Your task to perform on an android device: Search for flights from London to Paris Image 0: 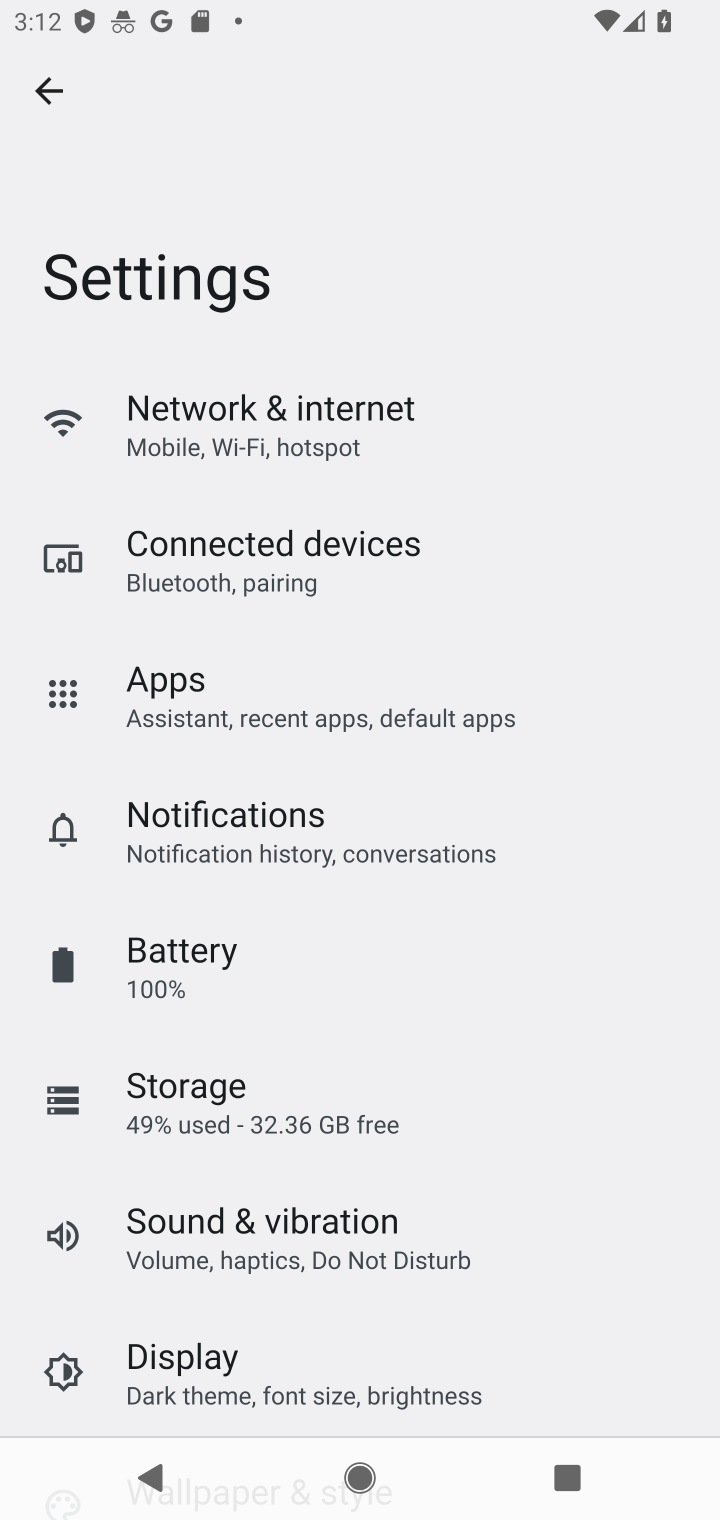
Step 0: press home button
Your task to perform on an android device: Search for flights from London to Paris Image 1: 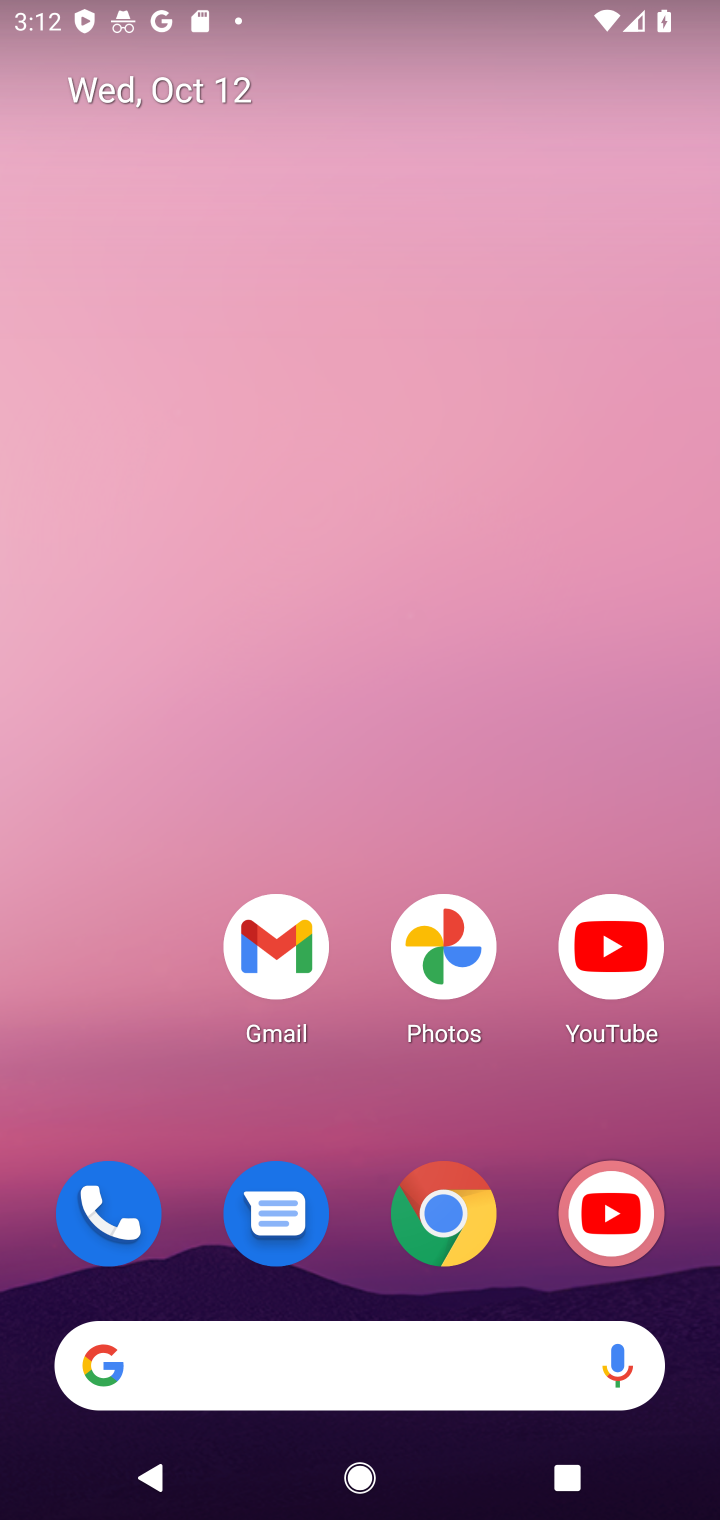
Step 1: click (356, 1384)
Your task to perform on an android device: Search for flights from London to Paris Image 2: 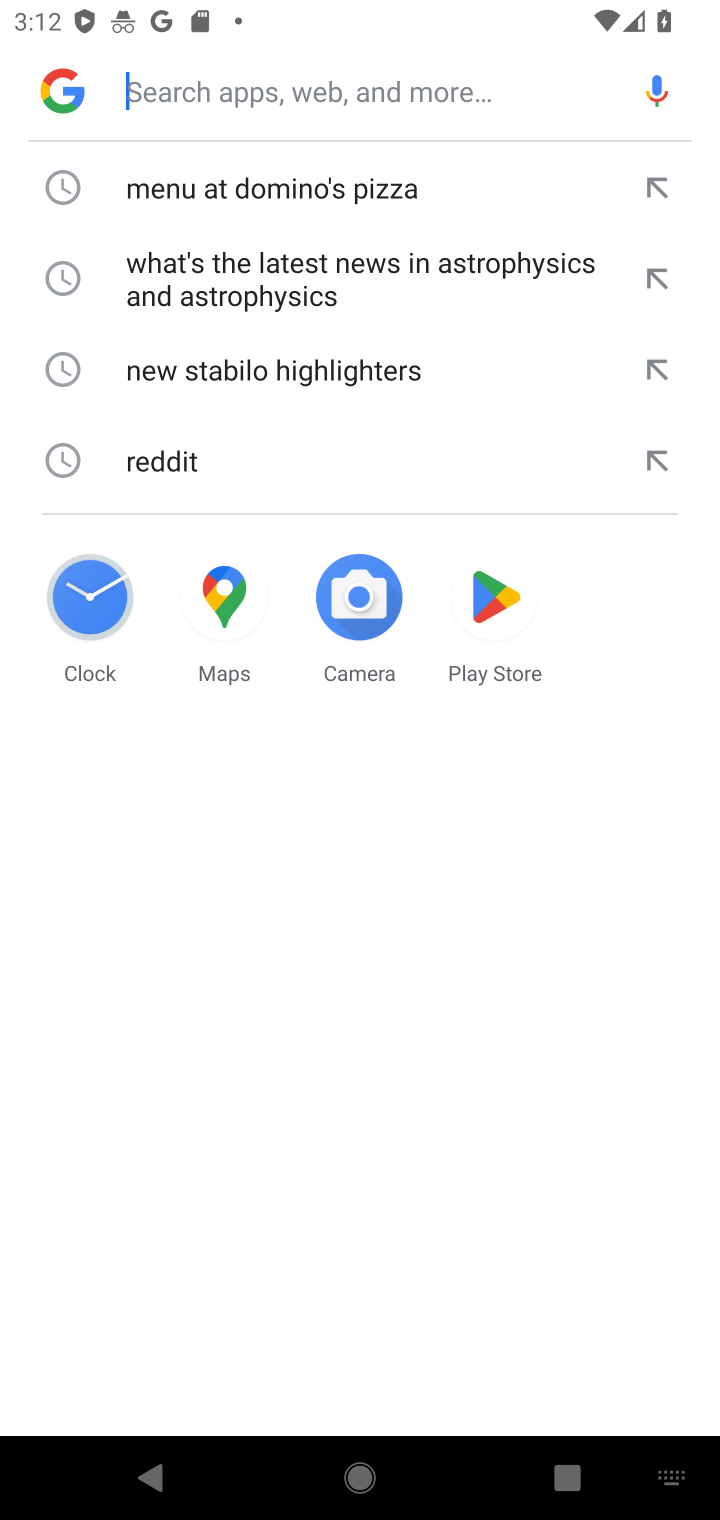
Step 2: click (227, 98)
Your task to perform on an android device: Search for flights from London to Paris Image 3: 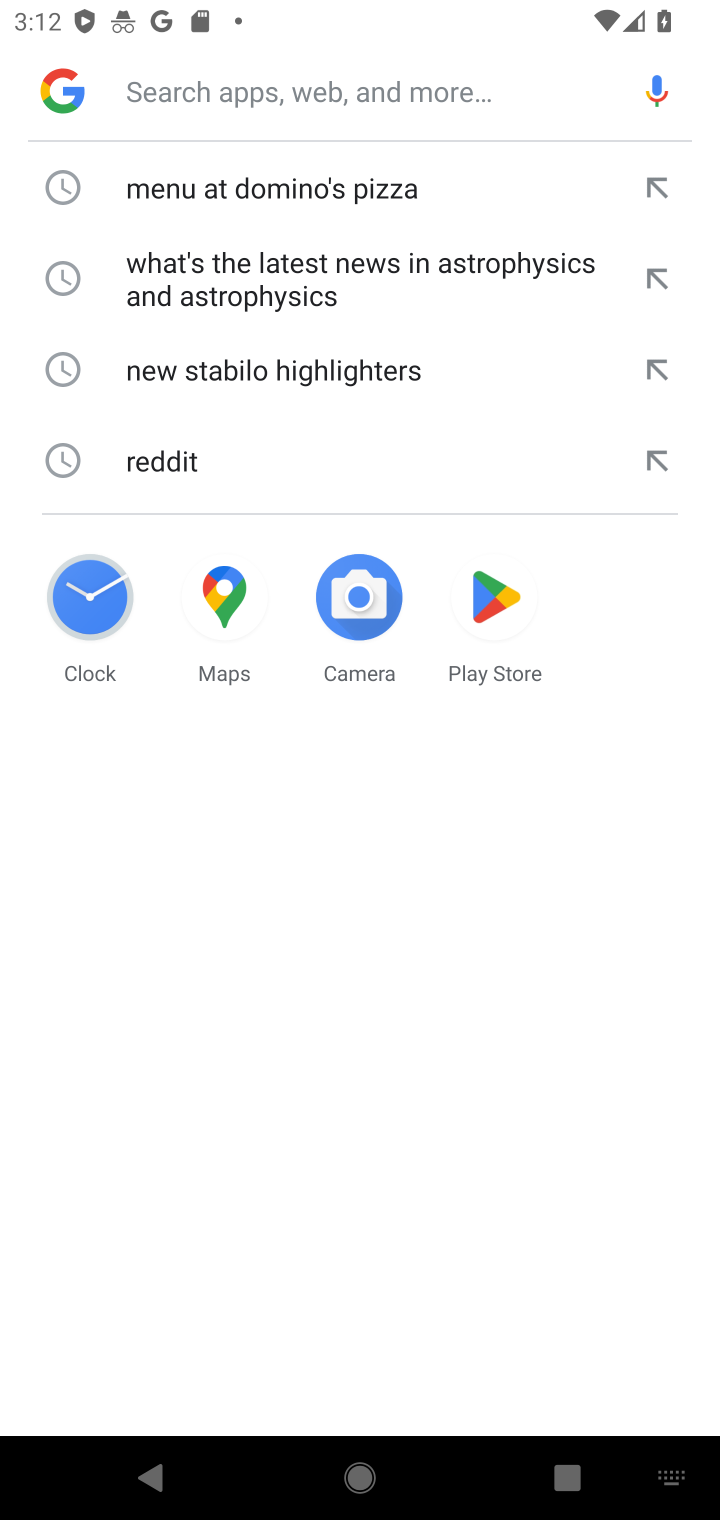
Step 3: type "flights from London to Paris"
Your task to perform on an android device: Search for flights from London to Paris Image 4: 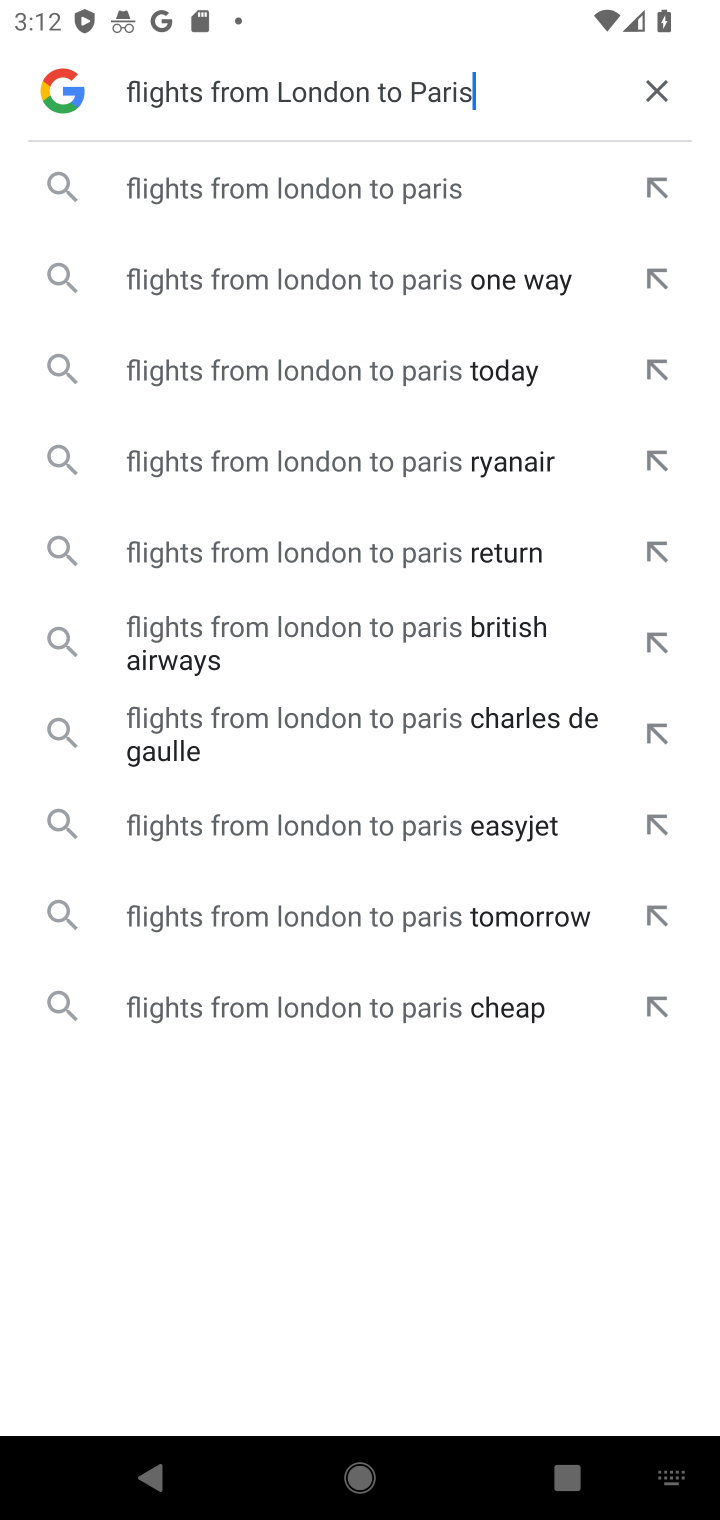
Step 4: click (398, 204)
Your task to perform on an android device: Search for flights from London to Paris Image 5: 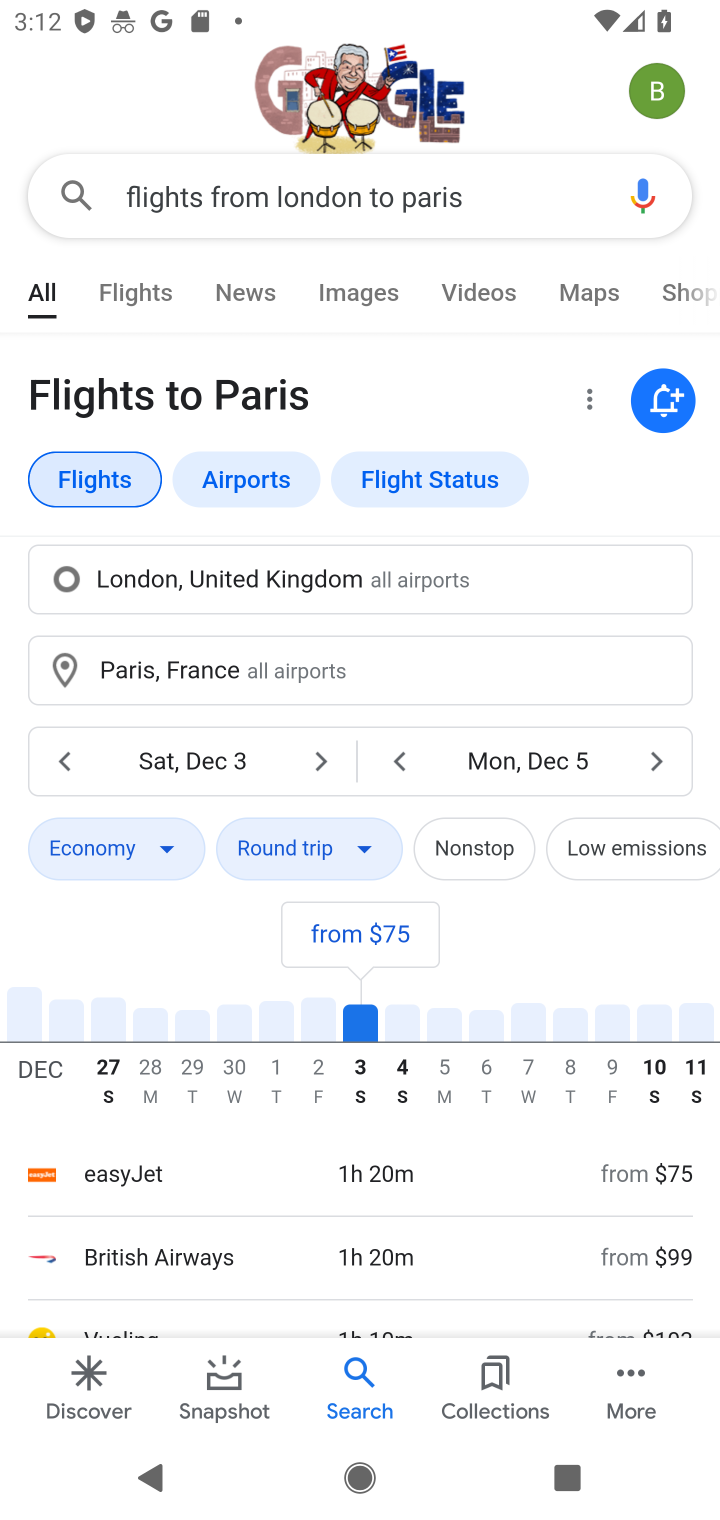
Step 5: task complete